Your task to perform on an android device: change the clock display to digital Image 0: 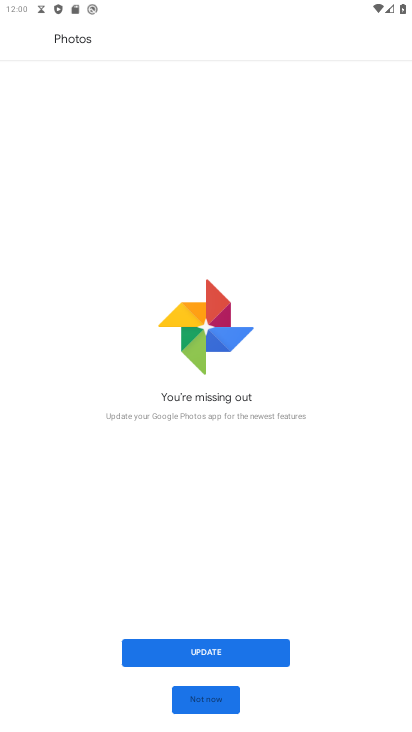
Step 0: press home button
Your task to perform on an android device: change the clock display to digital Image 1: 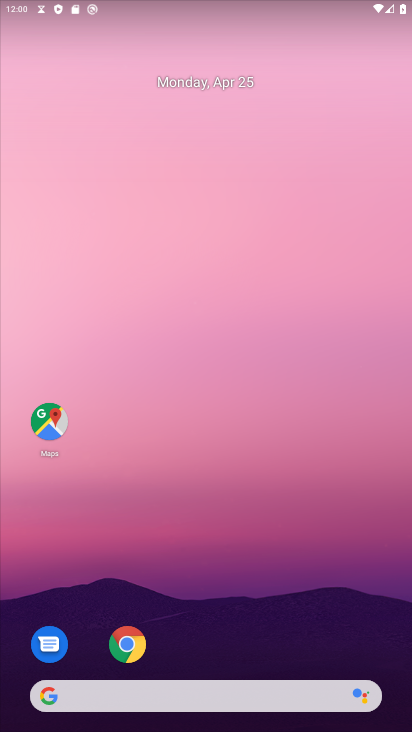
Step 1: drag from (377, 656) to (365, 62)
Your task to perform on an android device: change the clock display to digital Image 2: 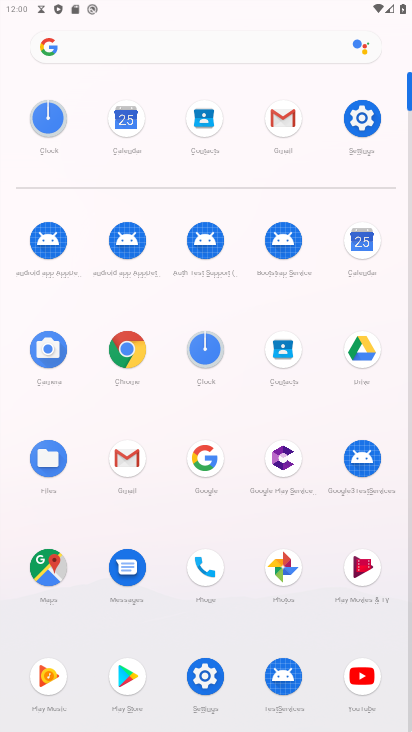
Step 2: click (45, 123)
Your task to perform on an android device: change the clock display to digital Image 3: 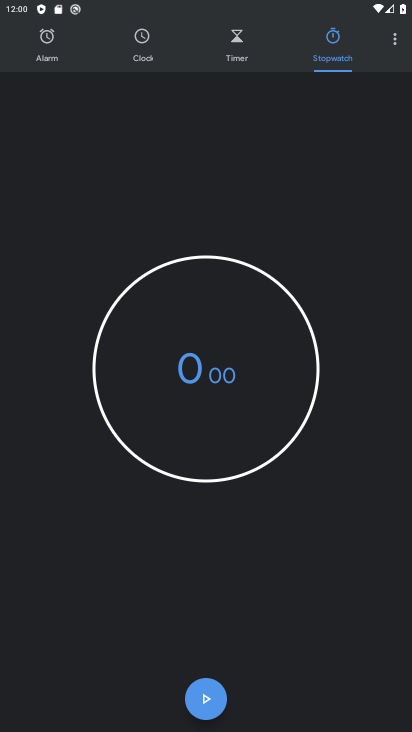
Step 3: click (396, 49)
Your task to perform on an android device: change the clock display to digital Image 4: 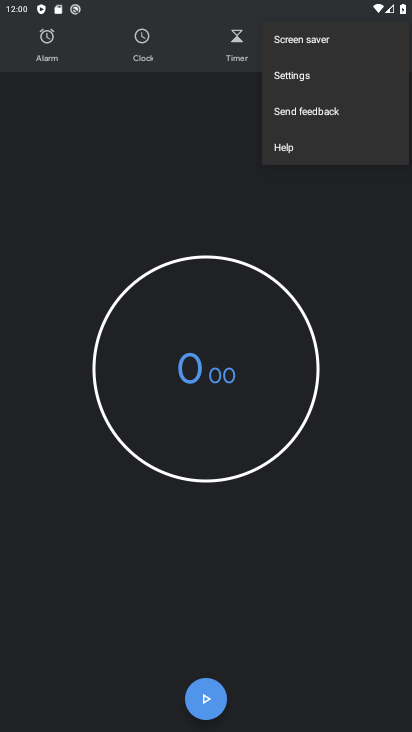
Step 4: click (290, 79)
Your task to perform on an android device: change the clock display to digital Image 5: 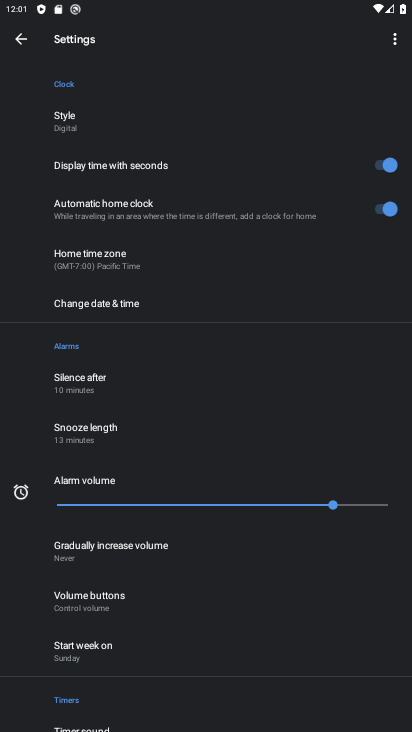
Step 5: task complete